Your task to perform on an android device: Open battery settings Image 0: 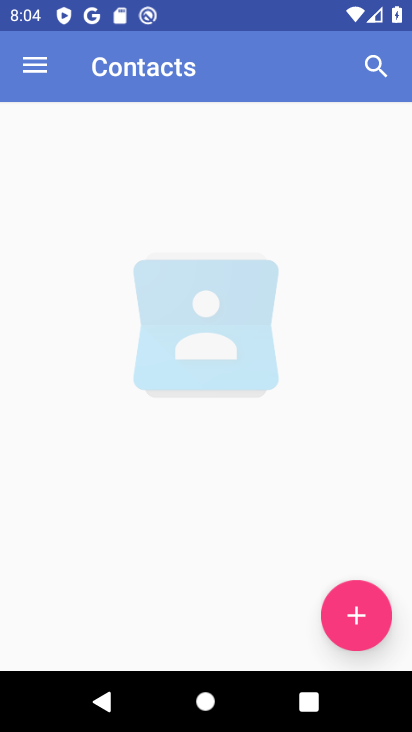
Step 0: press home button
Your task to perform on an android device: Open battery settings Image 1: 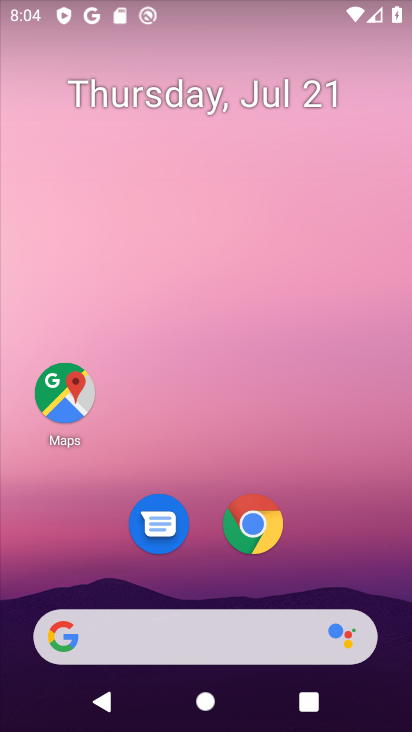
Step 1: drag from (243, 536) to (334, 87)
Your task to perform on an android device: Open battery settings Image 2: 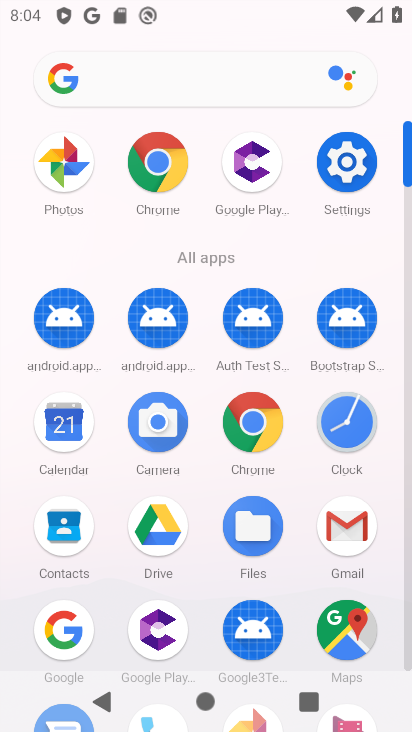
Step 2: click (349, 164)
Your task to perform on an android device: Open battery settings Image 3: 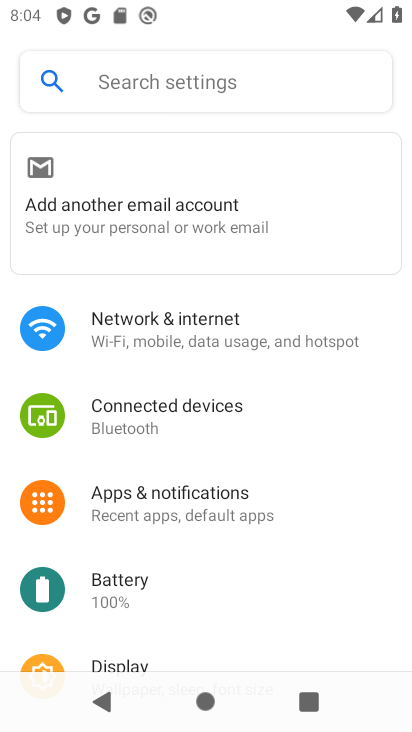
Step 3: click (131, 574)
Your task to perform on an android device: Open battery settings Image 4: 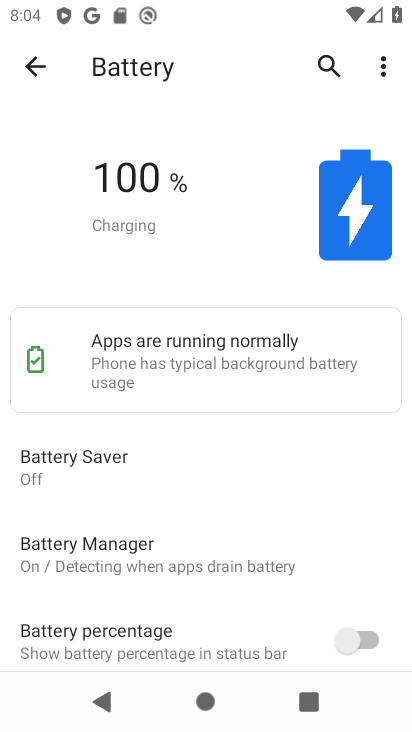
Step 4: task complete